Your task to perform on an android device: Play the last video I watched on Youtube Image 0: 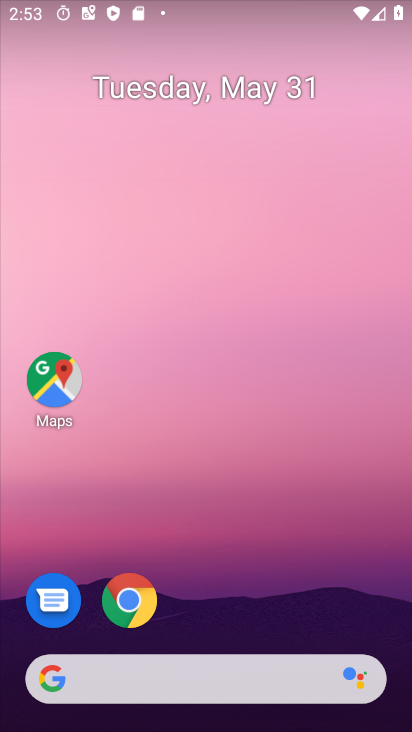
Step 0: press home button
Your task to perform on an android device: Play the last video I watched on Youtube Image 1: 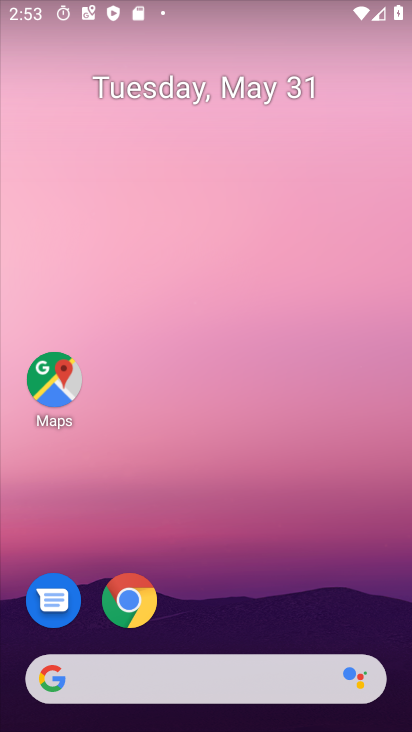
Step 1: drag from (218, 612) to (246, 96)
Your task to perform on an android device: Play the last video I watched on Youtube Image 2: 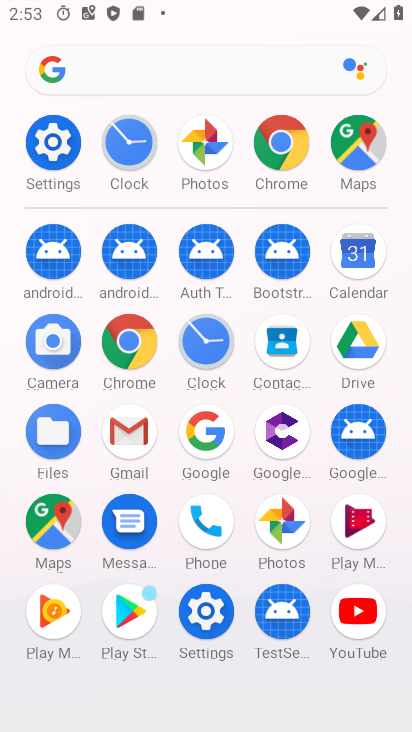
Step 2: click (355, 604)
Your task to perform on an android device: Play the last video I watched on Youtube Image 3: 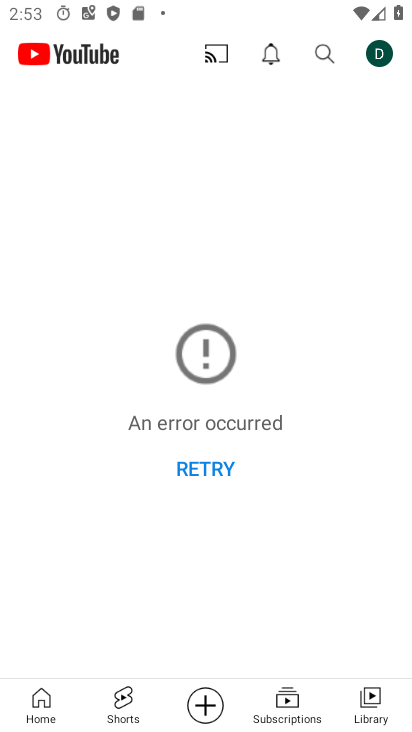
Step 3: click (366, 695)
Your task to perform on an android device: Play the last video I watched on Youtube Image 4: 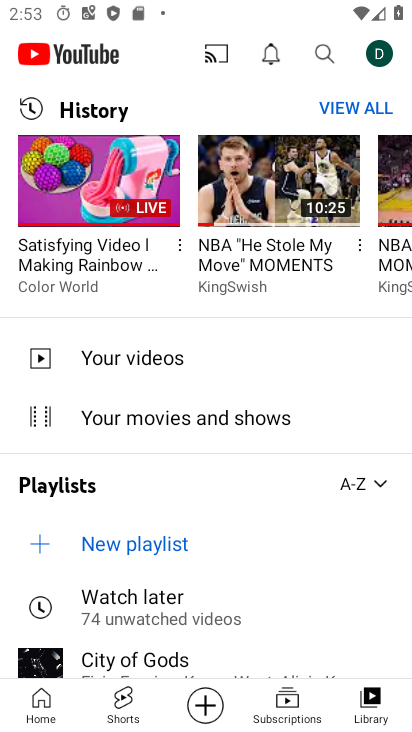
Step 4: click (99, 204)
Your task to perform on an android device: Play the last video I watched on Youtube Image 5: 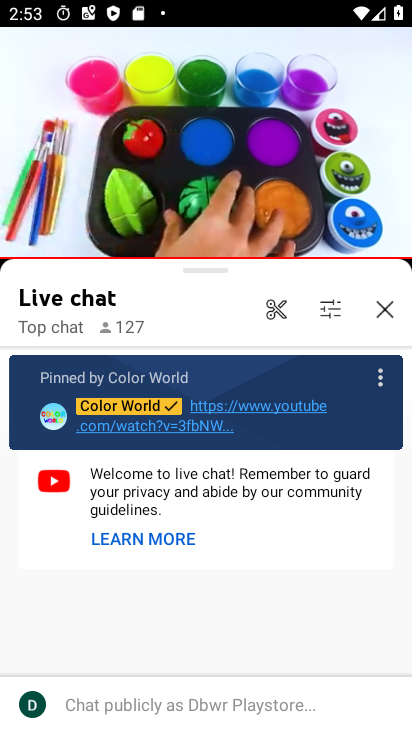
Step 5: task complete